Your task to perform on an android device: toggle priority inbox in the gmail app Image 0: 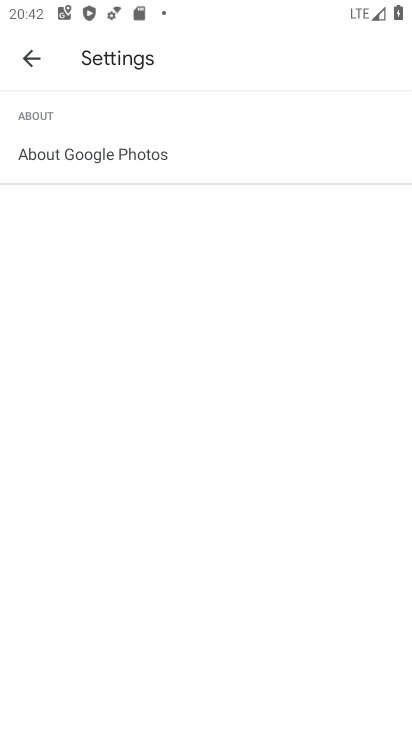
Step 0: press back button
Your task to perform on an android device: toggle priority inbox in the gmail app Image 1: 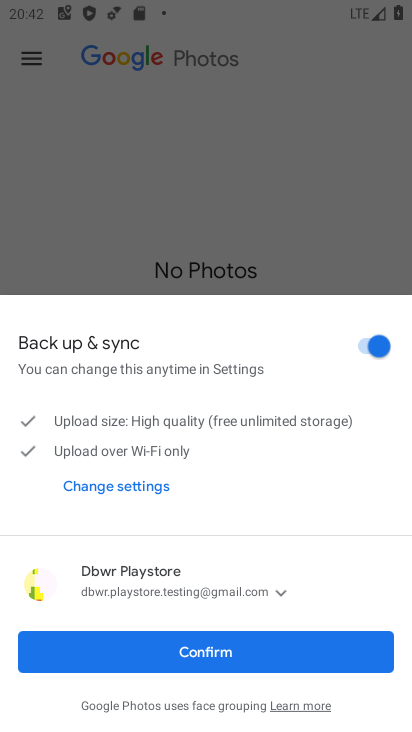
Step 1: press back button
Your task to perform on an android device: toggle priority inbox in the gmail app Image 2: 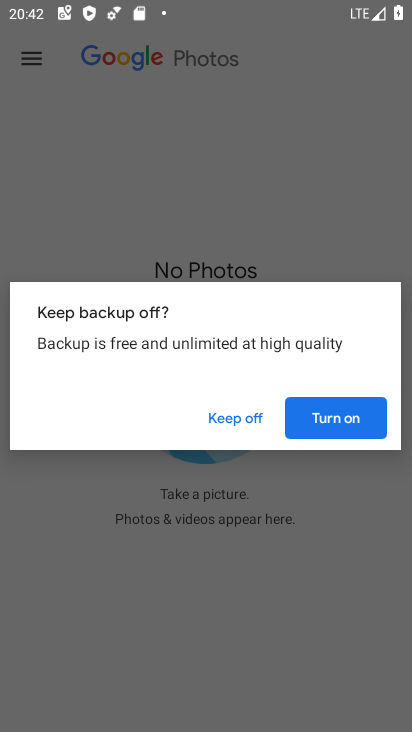
Step 2: press home button
Your task to perform on an android device: toggle priority inbox in the gmail app Image 3: 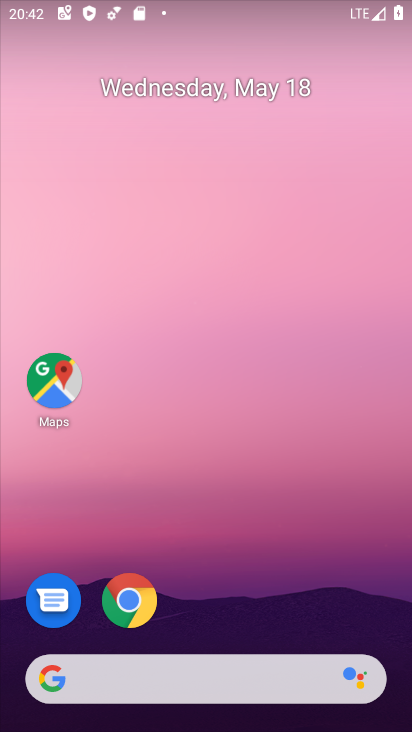
Step 3: drag from (191, 651) to (352, 26)
Your task to perform on an android device: toggle priority inbox in the gmail app Image 4: 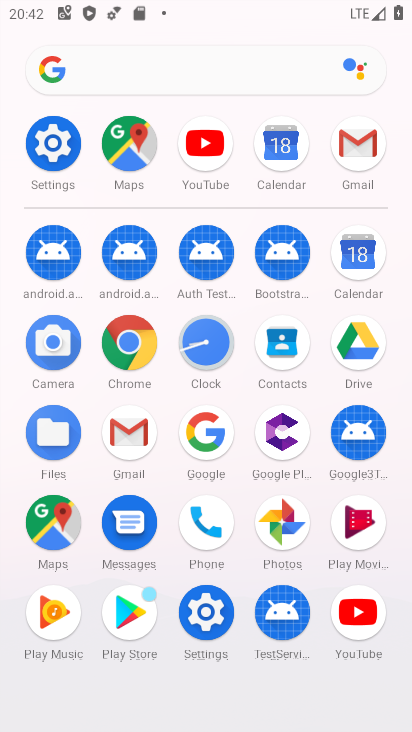
Step 4: click (369, 139)
Your task to perform on an android device: toggle priority inbox in the gmail app Image 5: 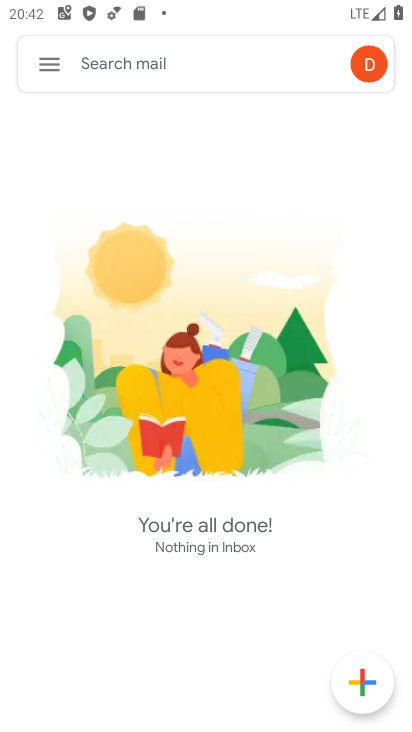
Step 5: click (43, 64)
Your task to perform on an android device: toggle priority inbox in the gmail app Image 6: 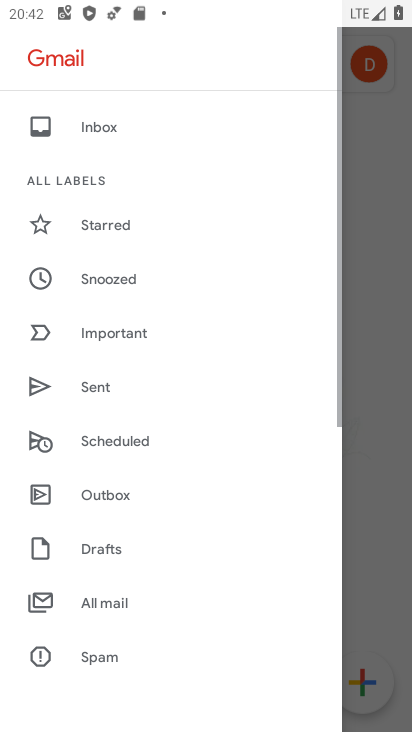
Step 6: drag from (146, 658) to (241, 84)
Your task to perform on an android device: toggle priority inbox in the gmail app Image 7: 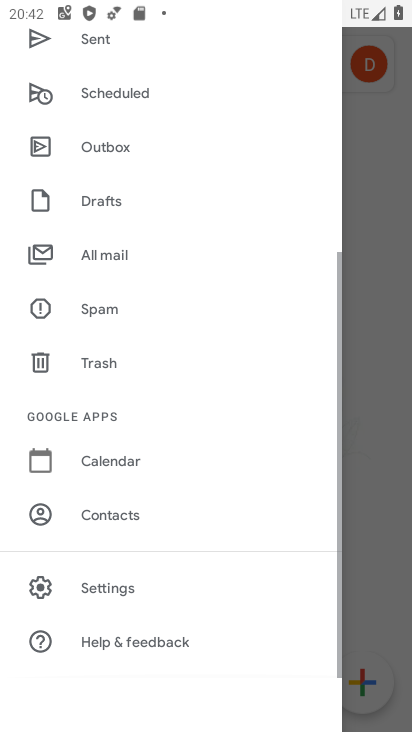
Step 7: click (147, 583)
Your task to perform on an android device: toggle priority inbox in the gmail app Image 8: 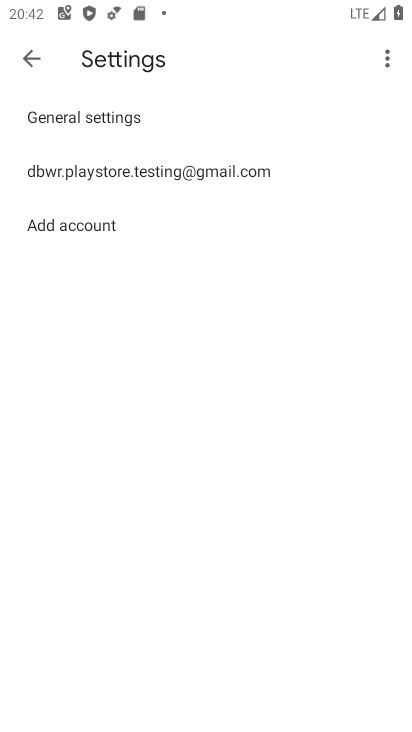
Step 8: click (131, 170)
Your task to perform on an android device: toggle priority inbox in the gmail app Image 9: 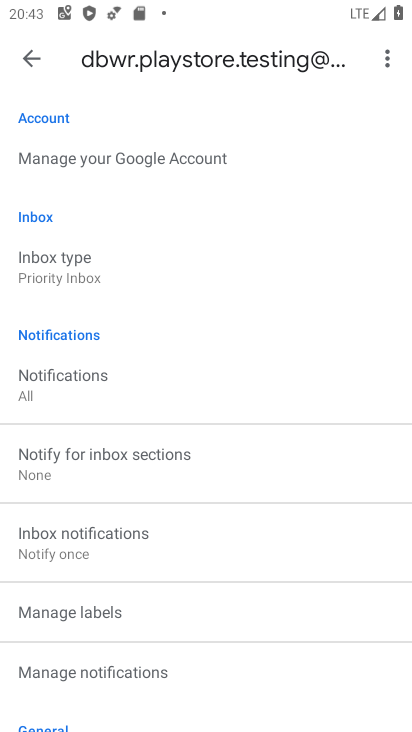
Step 9: click (72, 266)
Your task to perform on an android device: toggle priority inbox in the gmail app Image 10: 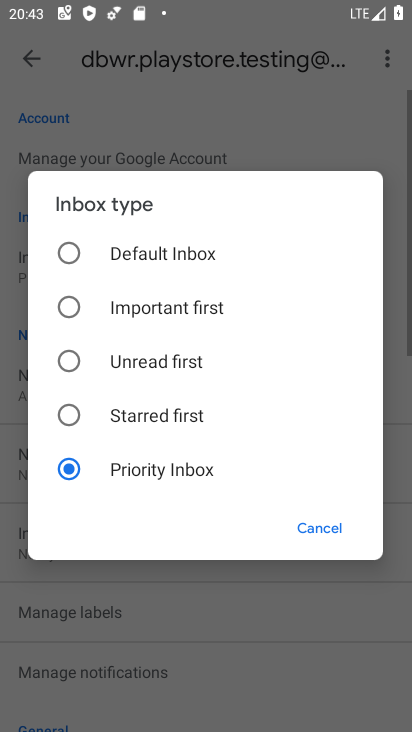
Step 10: click (65, 472)
Your task to perform on an android device: toggle priority inbox in the gmail app Image 11: 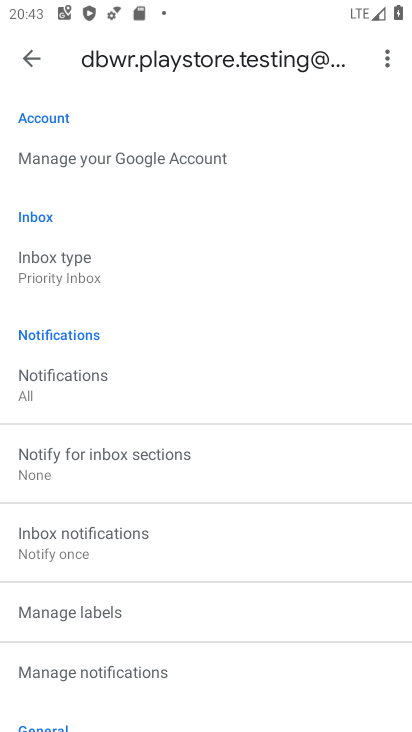
Step 11: task complete